Your task to perform on an android device: allow notifications from all sites in the chrome app Image 0: 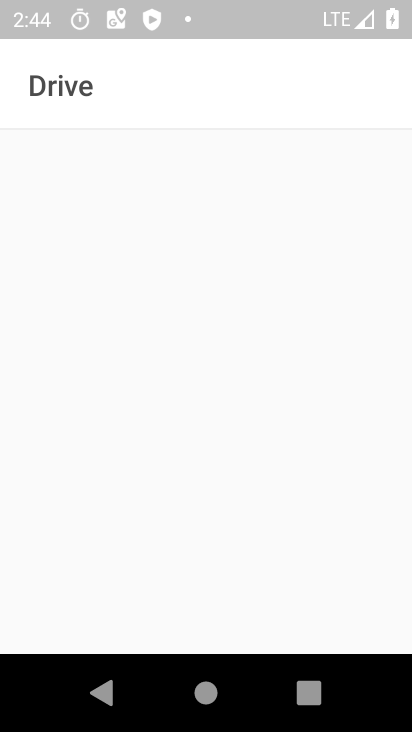
Step 0: press home button
Your task to perform on an android device: allow notifications from all sites in the chrome app Image 1: 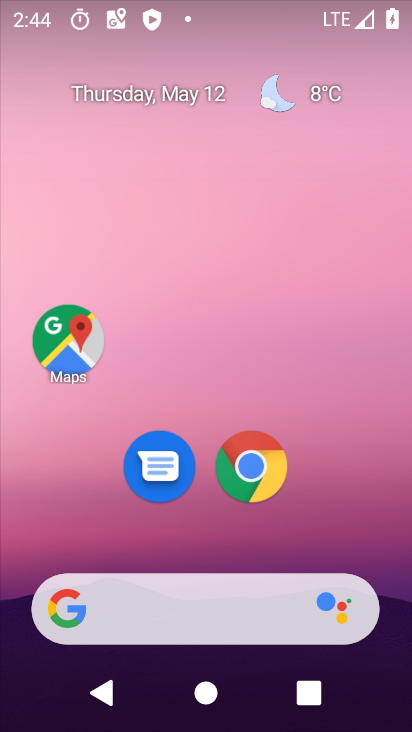
Step 1: click (259, 474)
Your task to perform on an android device: allow notifications from all sites in the chrome app Image 2: 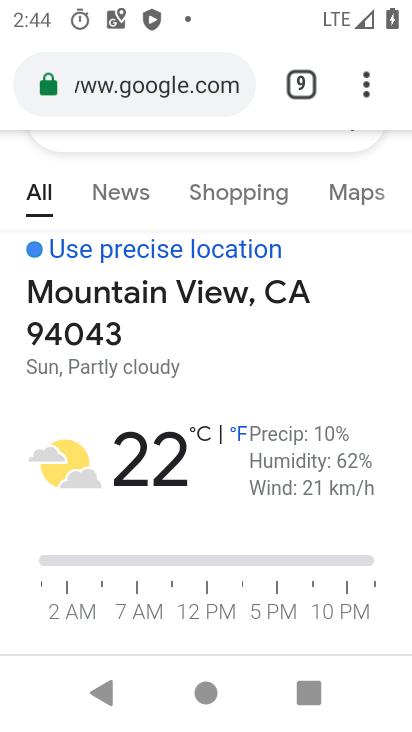
Step 2: click (371, 85)
Your task to perform on an android device: allow notifications from all sites in the chrome app Image 3: 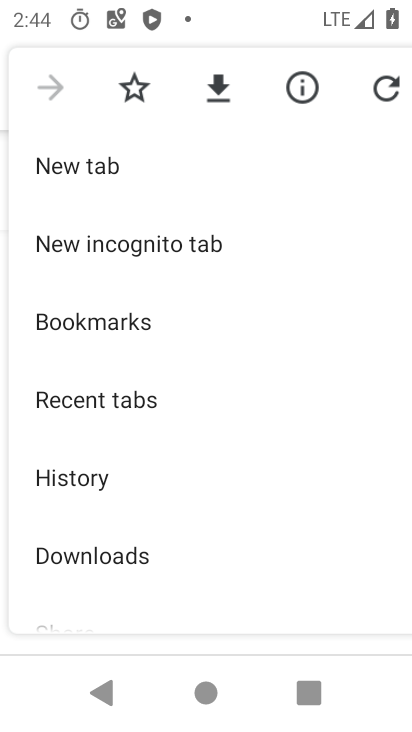
Step 3: drag from (186, 522) to (205, 238)
Your task to perform on an android device: allow notifications from all sites in the chrome app Image 4: 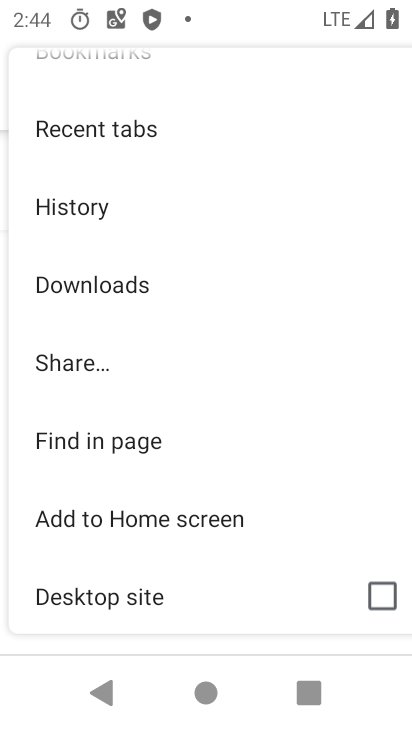
Step 4: drag from (129, 572) to (146, 172)
Your task to perform on an android device: allow notifications from all sites in the chrome app Image 5: 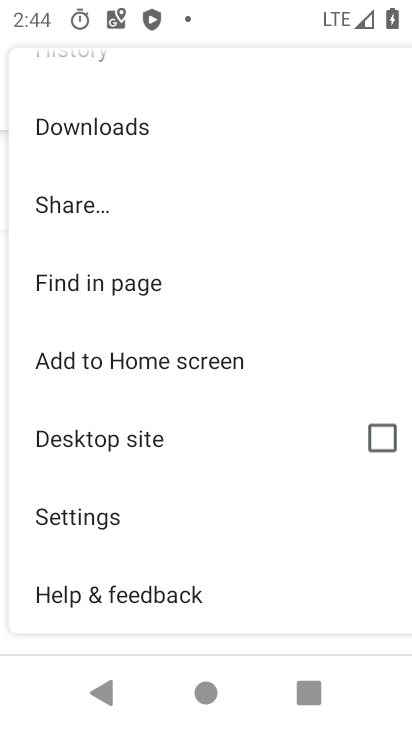
Step 5: click (68, 520)
Your task to perform on an android device: allow notifications from all sites in the chrome app Image 6: 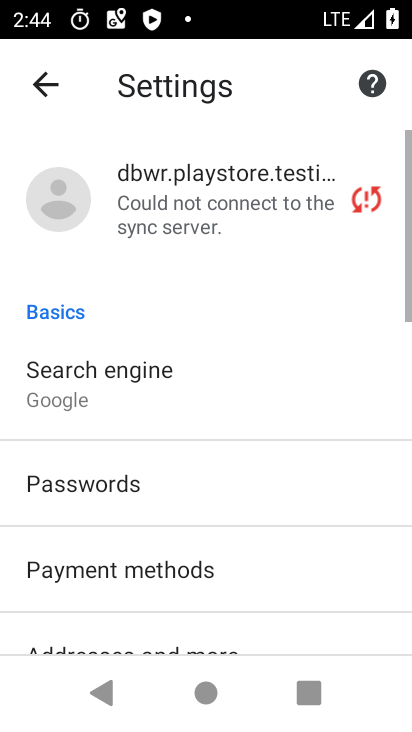
Step 6: drag from (68, 520) to (70, 205)
Your task to perform on an android device: allow notifications from all sites in the chrome app Image 7: 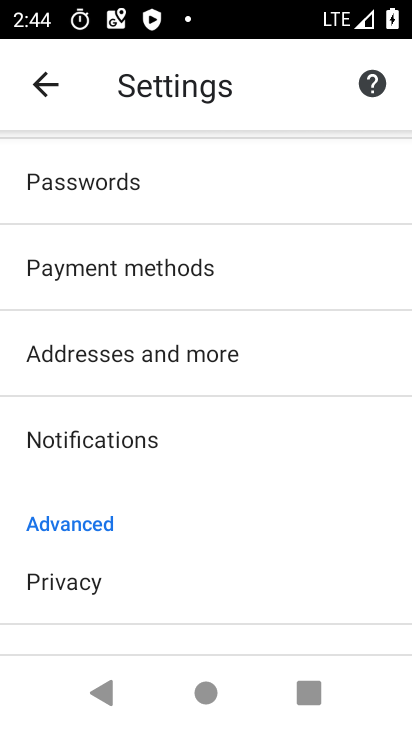
Step 7: click (92, 435)
Your task to perform on an android device: allow notifications from all sites in the chrome app Image 8: 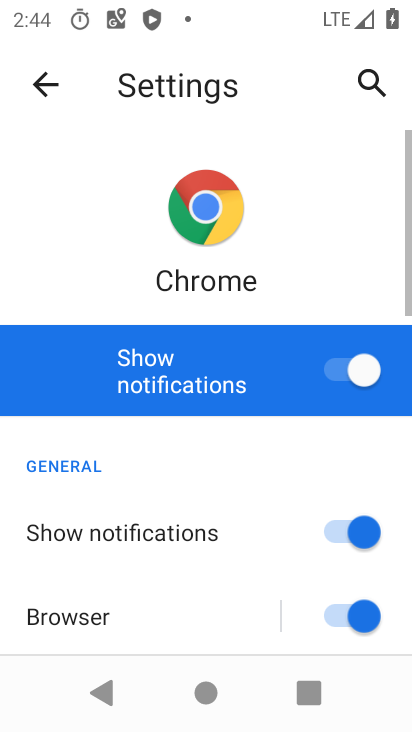
Step 8: drag from (178, 605) to (196, 222)
Your task to perform on an android device: allow notifications from all sites in the chrome app Image 9: 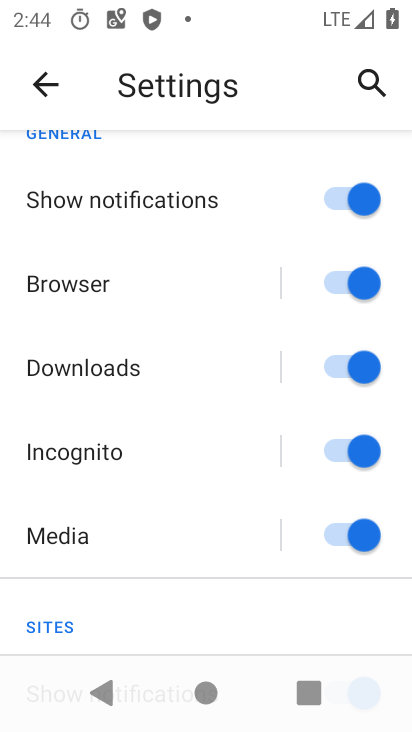
Step 9: drag from (169, 537) to (180, 190)
Your task to perform on an android device: allow notifications from all sites in the chrome app Image 10: 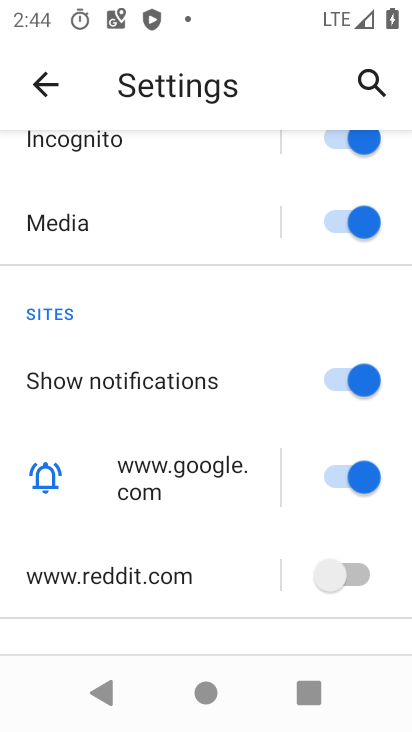
Step 10: click (336, 581)
Your task to perform on an android device: allow notifications from all sites in the chrome app Image 11: 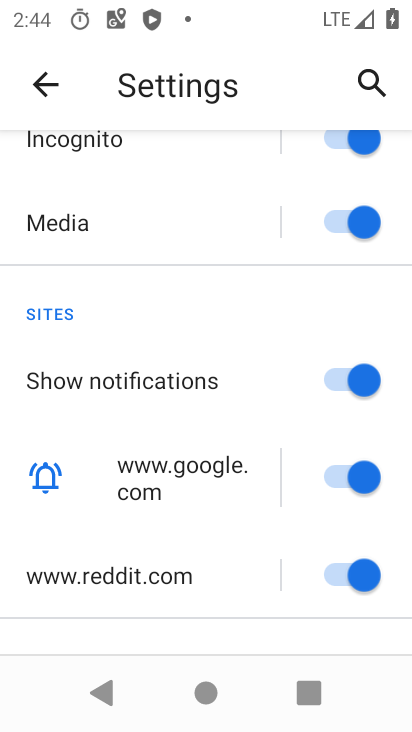
Step 11: task complete